Your task to perform on an android device: What's the weather going to be tomorrow? Image 0: 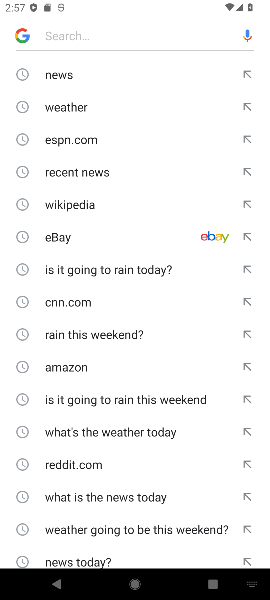
Step 0: click (84, 108)
Your task to perform on an android device: What's the weather going to be tomorrow? Image 1: 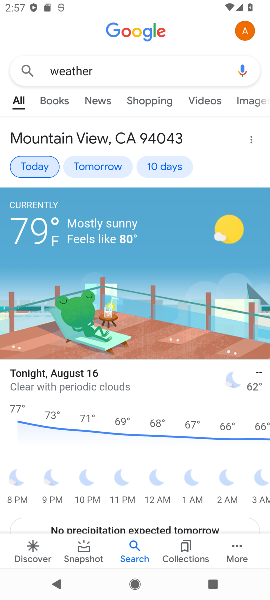
Step 1: click (112, 167)
Your task to perform on an android device: What's the weather going to be tomorrow? Image 2: 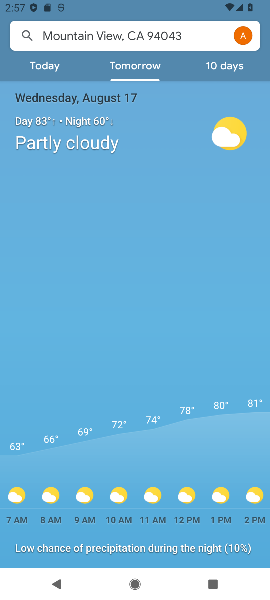
Step 2: task complete